Your task to perform on an android device: clear history in the chrome app Image 0: 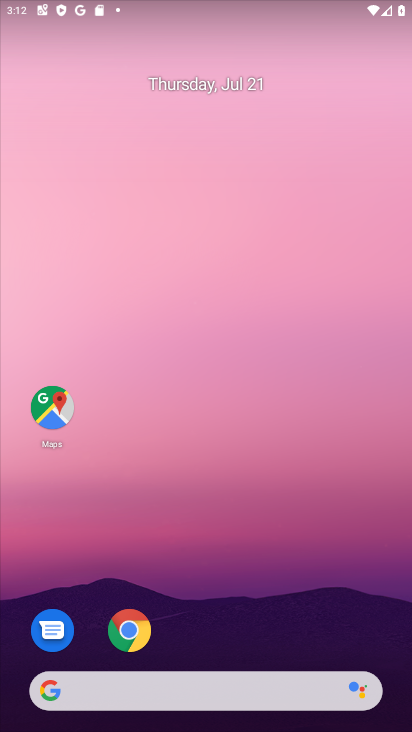
Step 0: click (285, 244)
Your task to perform on an android device: clear history in the chrome app Image 1: 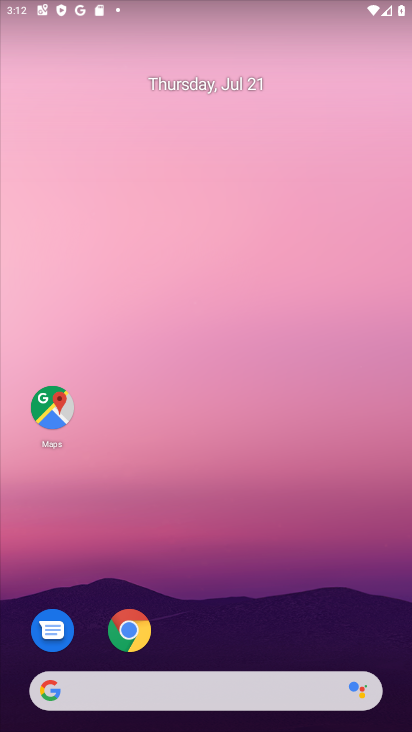
Step 1: drag from (287, 572) to (214, 0)
Your task to perform on an android device: clear history in the chrome app Image 2: 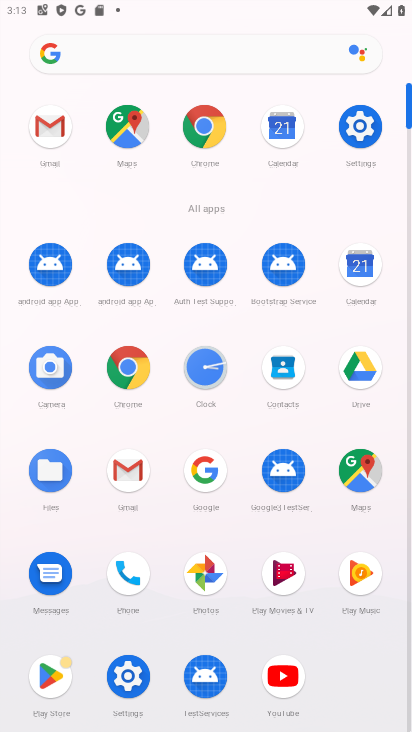
Step 2: click (211, 121)
Your task to perform on an android device: clear history in the chrome app Image 3: 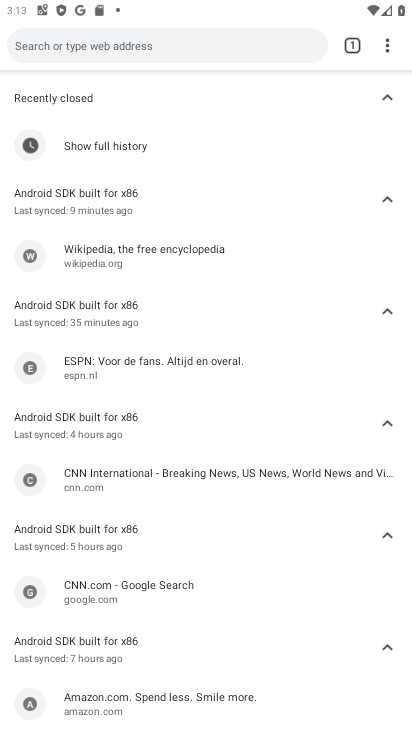
Step 3: drag from (389, 44) to (208, 262)
Your task to perform on an android device: clear history in the chrome app Image 4: 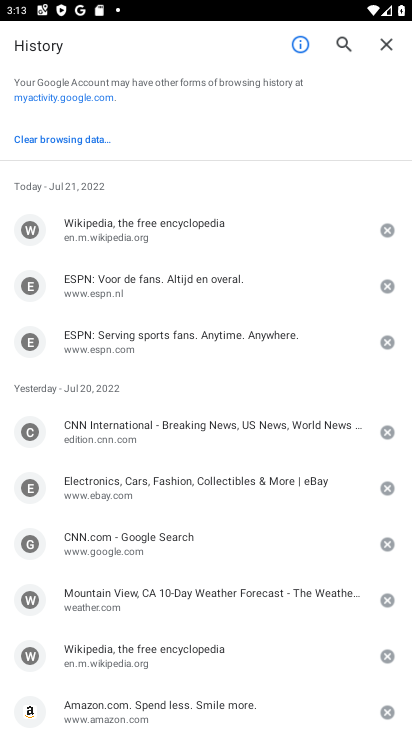
Step 4: click (64, 136)
Your task to perform on an android device: clear history in the chrome app Image 5: 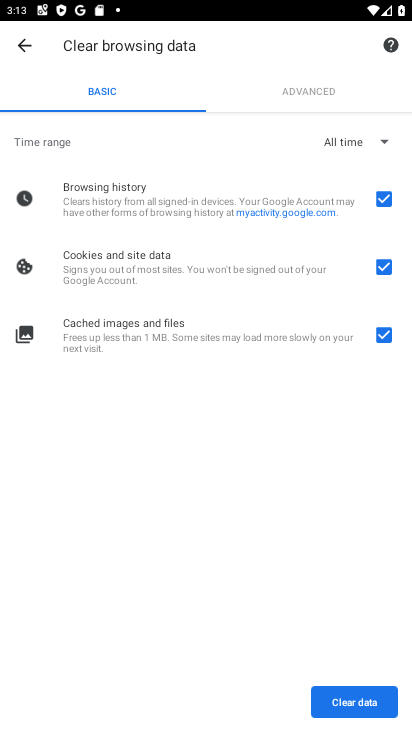
Step 5: click (360, 700)
Your task to perform on an android device: clear history in the chrome app Image 6: 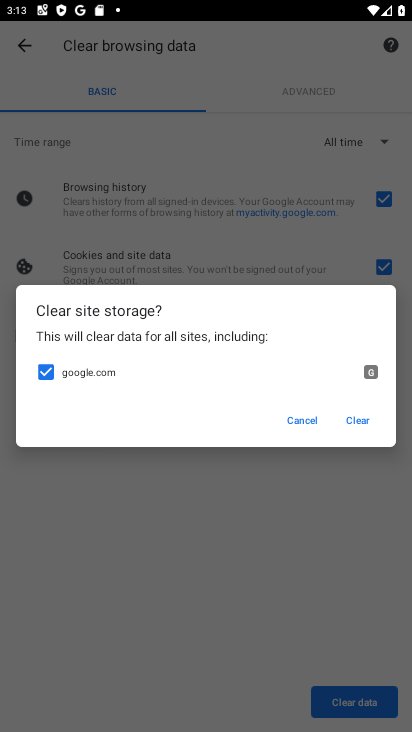
Step 6: click (353, 422)
Your task to perform on an android device: clear history in the chrome app Image 7: 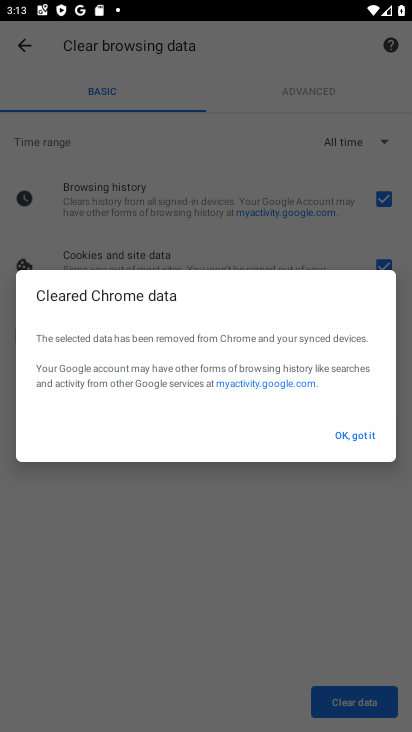
Step 7: click (365, 468)
Your task to perform on an android device: clear history in the chrome app Image 8: 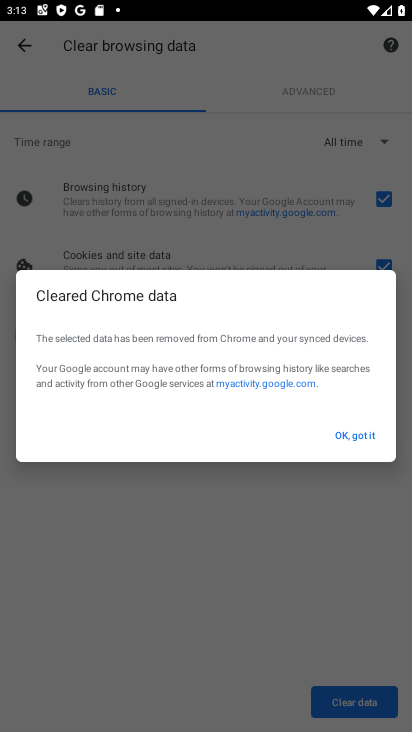
Step 8: click (365, 440)
Your task to perform on an android device: clear history in the chrome app Image 9: 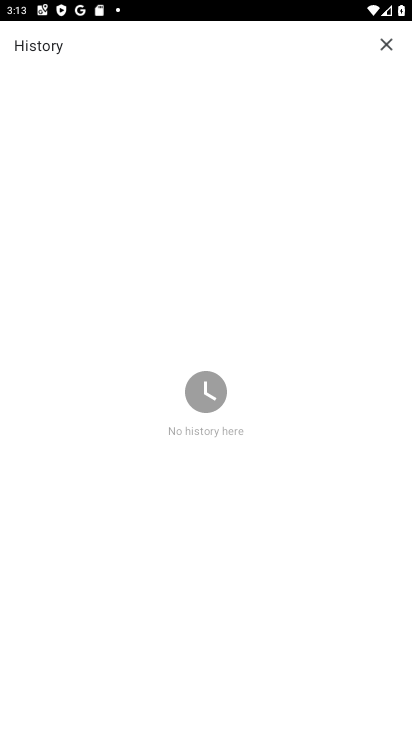
Step 9: task complete